Your task to perform on an android device: Search for razer huntsman on target.com, select the first entry, and add it to the cart. Image 0: 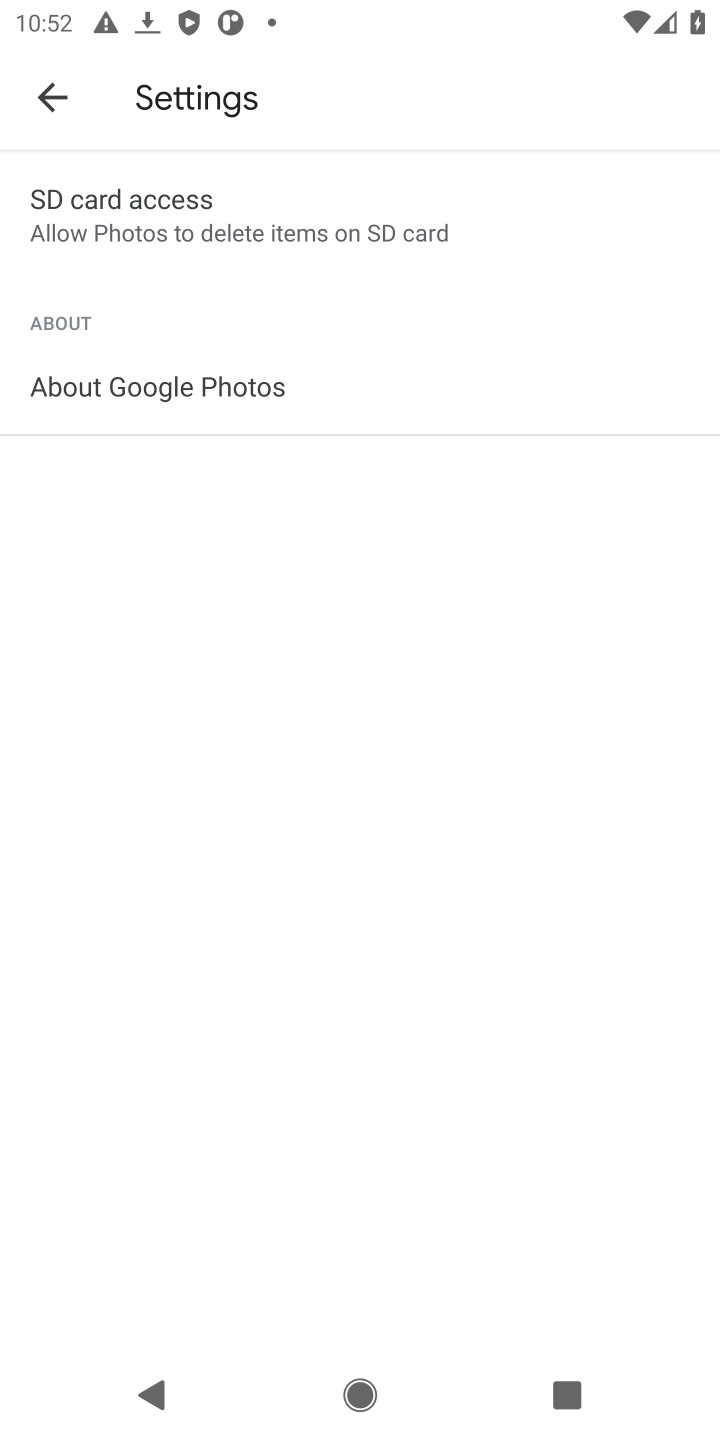
Step 0: press home button
Your task to perform on an android device: Search for razer huntsman on target.com, select the first entry, and add it to the cart. Image 1: 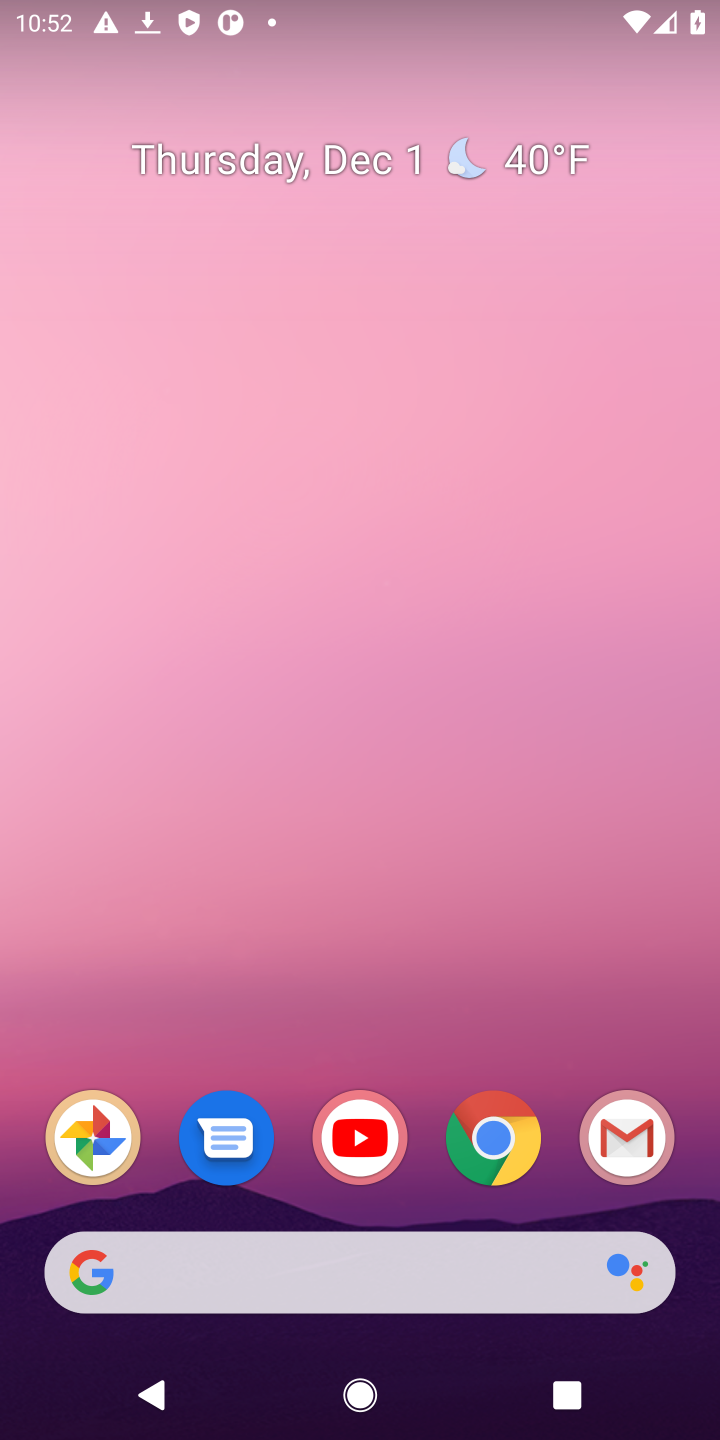
Step 1: drag from (356, 1208) to (358, 740)
Your task to perform on an android device: Search for razer huntsman on target.com, select the first entry, and add it to the cart. Image 2: 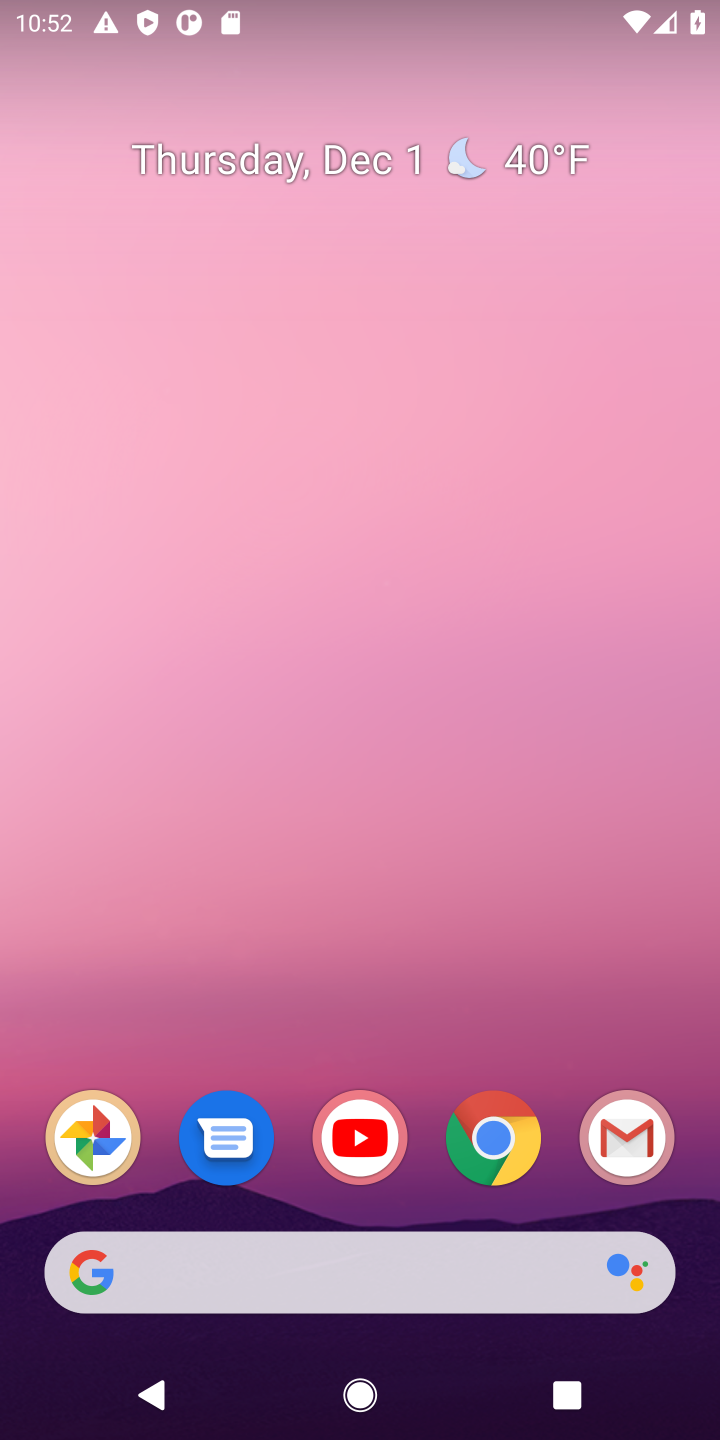
Step 2: drag from (300, 1217) to (388, 365)
Your task to perform on an android device: Search for razer huntsman on target.com, select the first entry, and add it to the cart. Image 3: 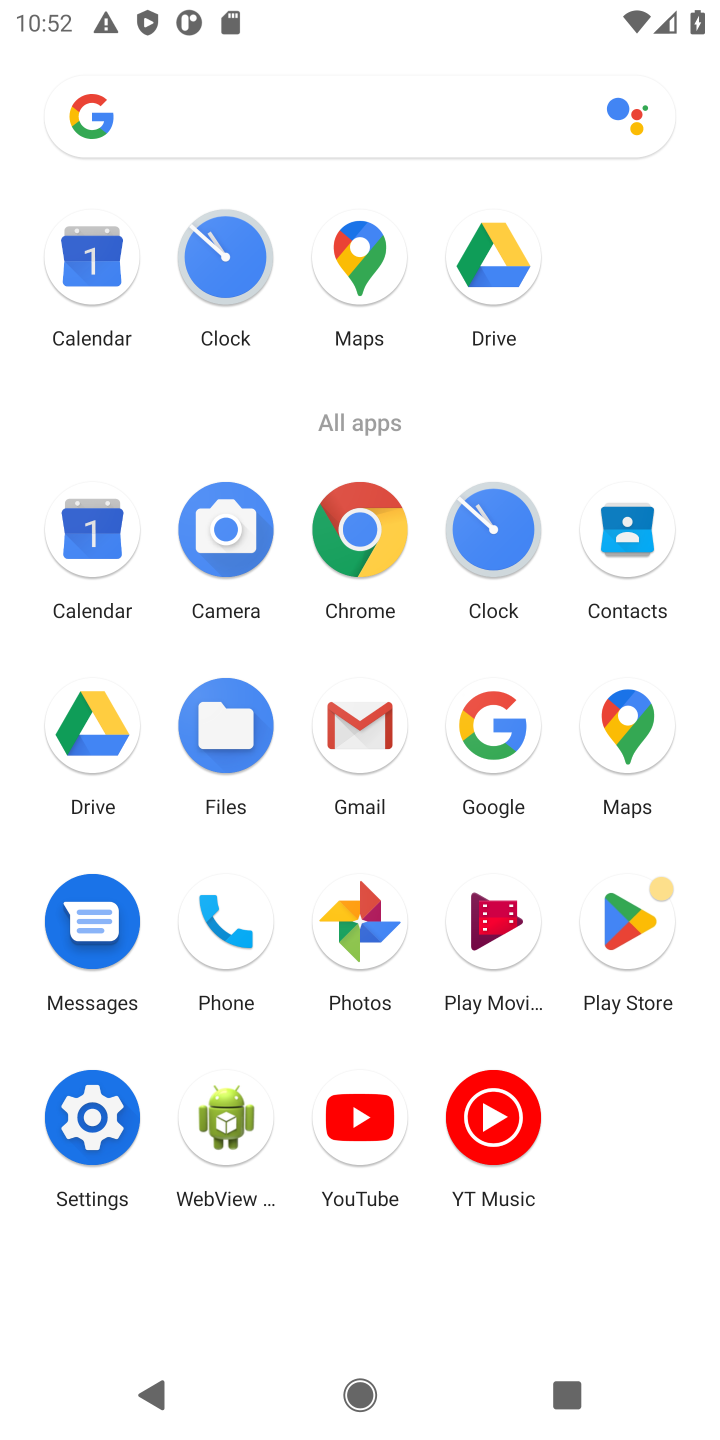
Step 3: click (504, 794)
Your task to perform on an android device: Search for razer huntsman on target.com, select the first entry, and add it to the cart. Image 4: 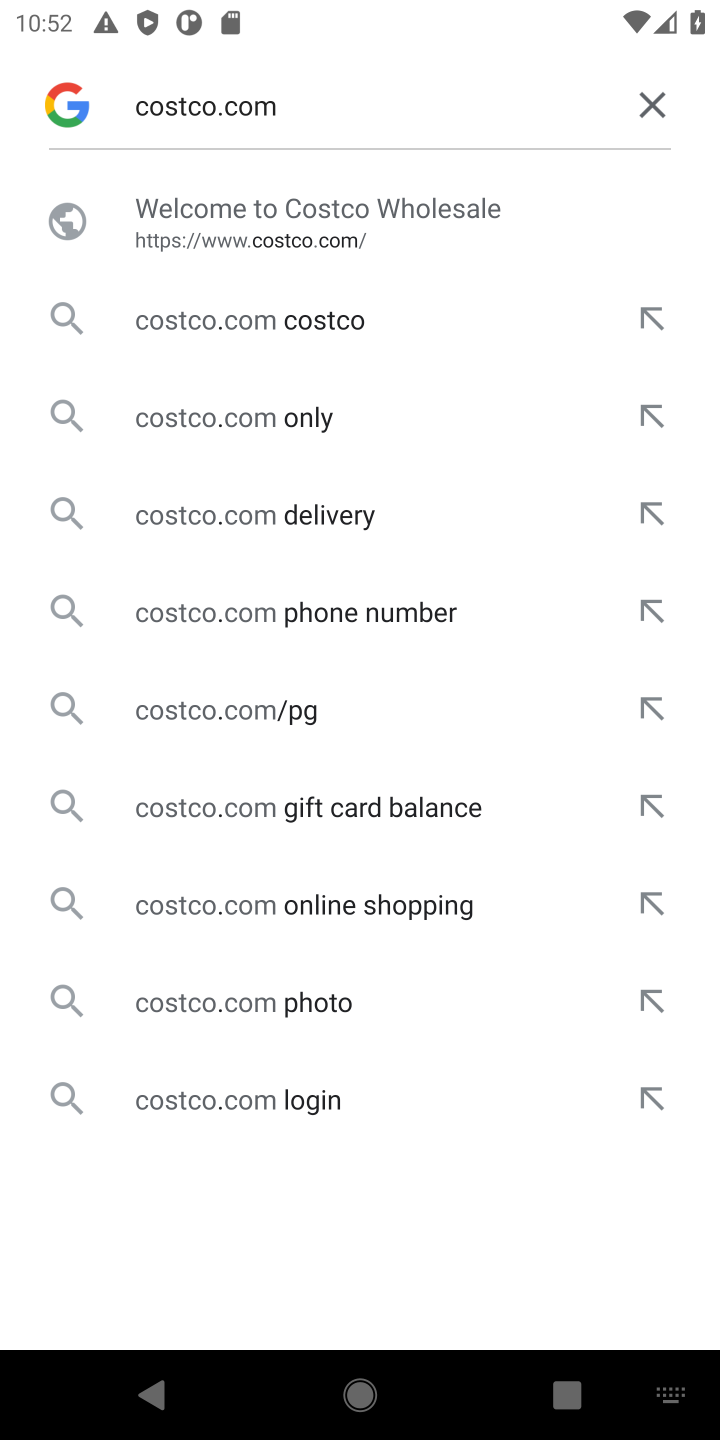
Step 4: click (652, 105)
Your task to perform on an android device: Search for razer huntsman on target.com, select the first entry, and add it to the cart. Image 5: 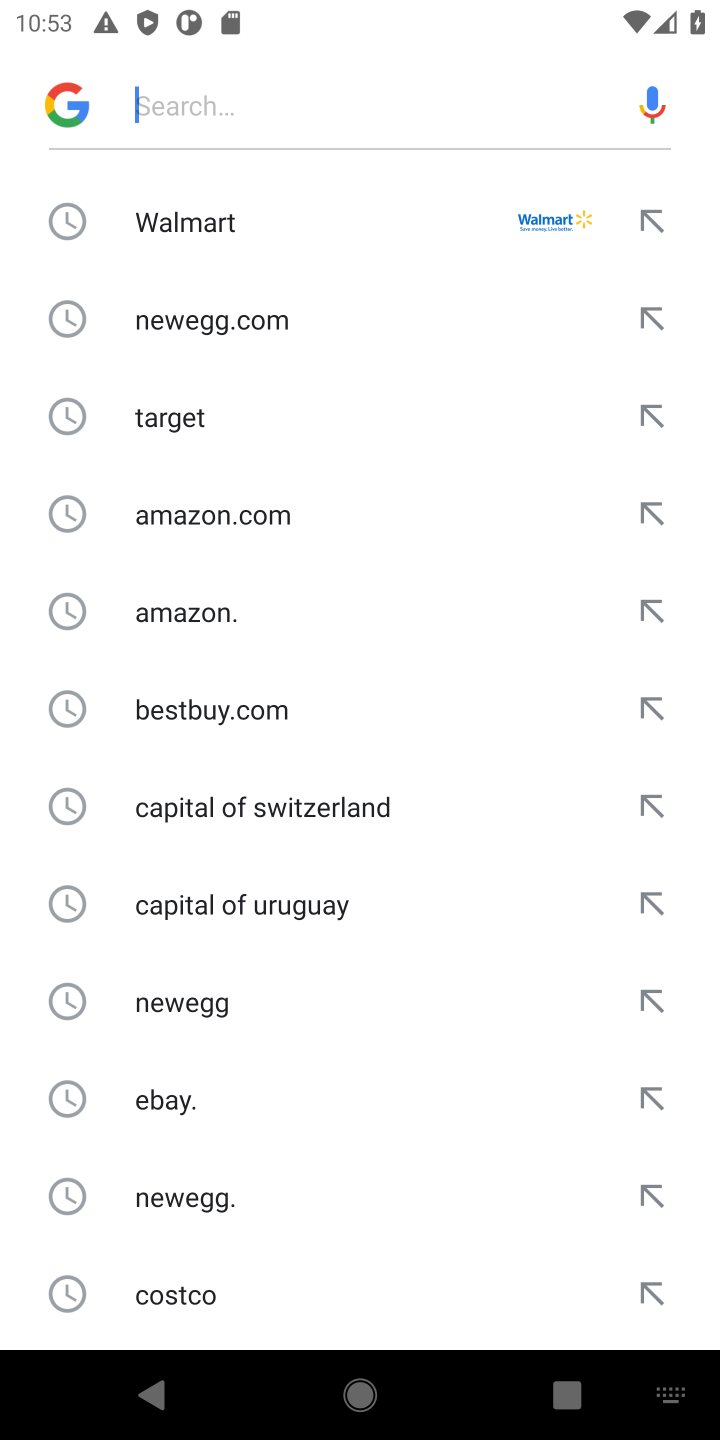
Step 5: type "target.com"
Your task to perform on an android device: Search for razer huntsman on target.com, select the first entry, and add it to the cart. Image 6: 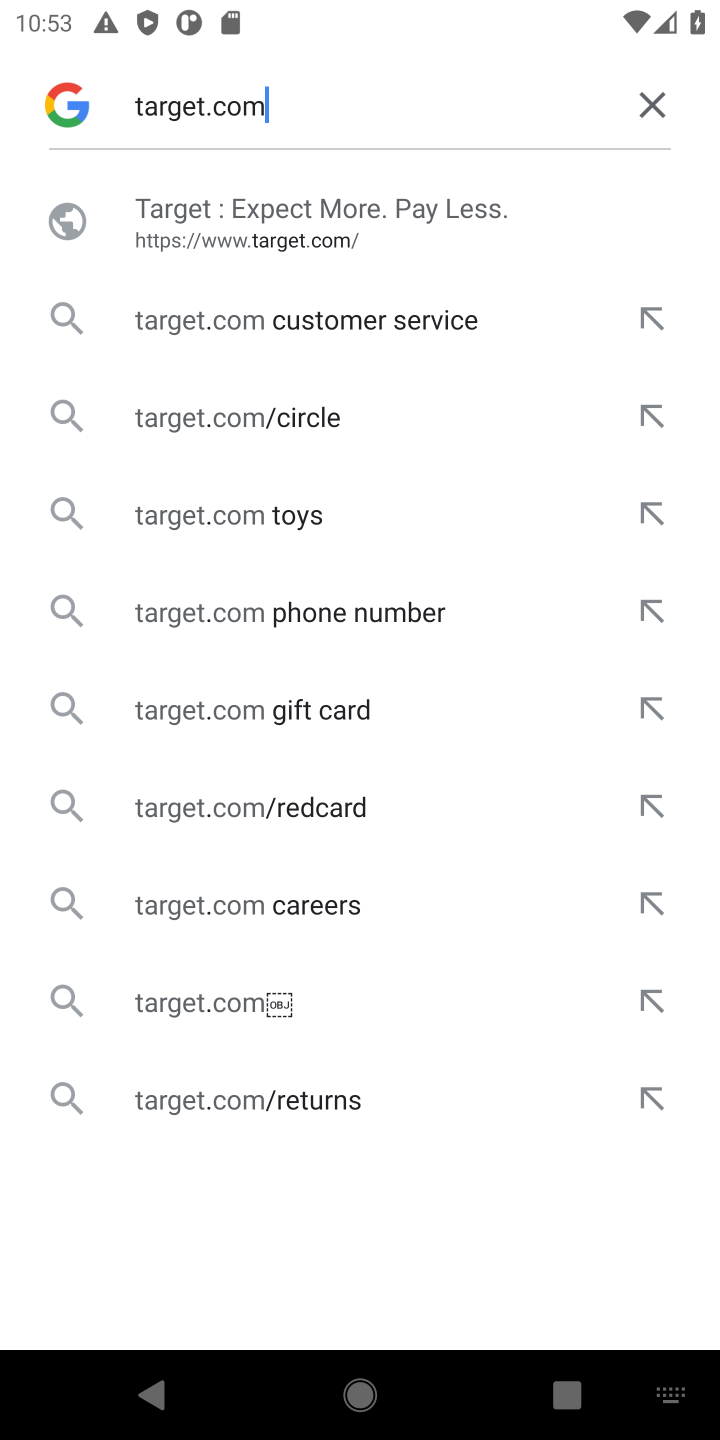
Step 6: click (323, 231)
Your task to perform on an android device: Search for razer huntsman on target.com, select the first entry, and add it to the cart. Image 7: 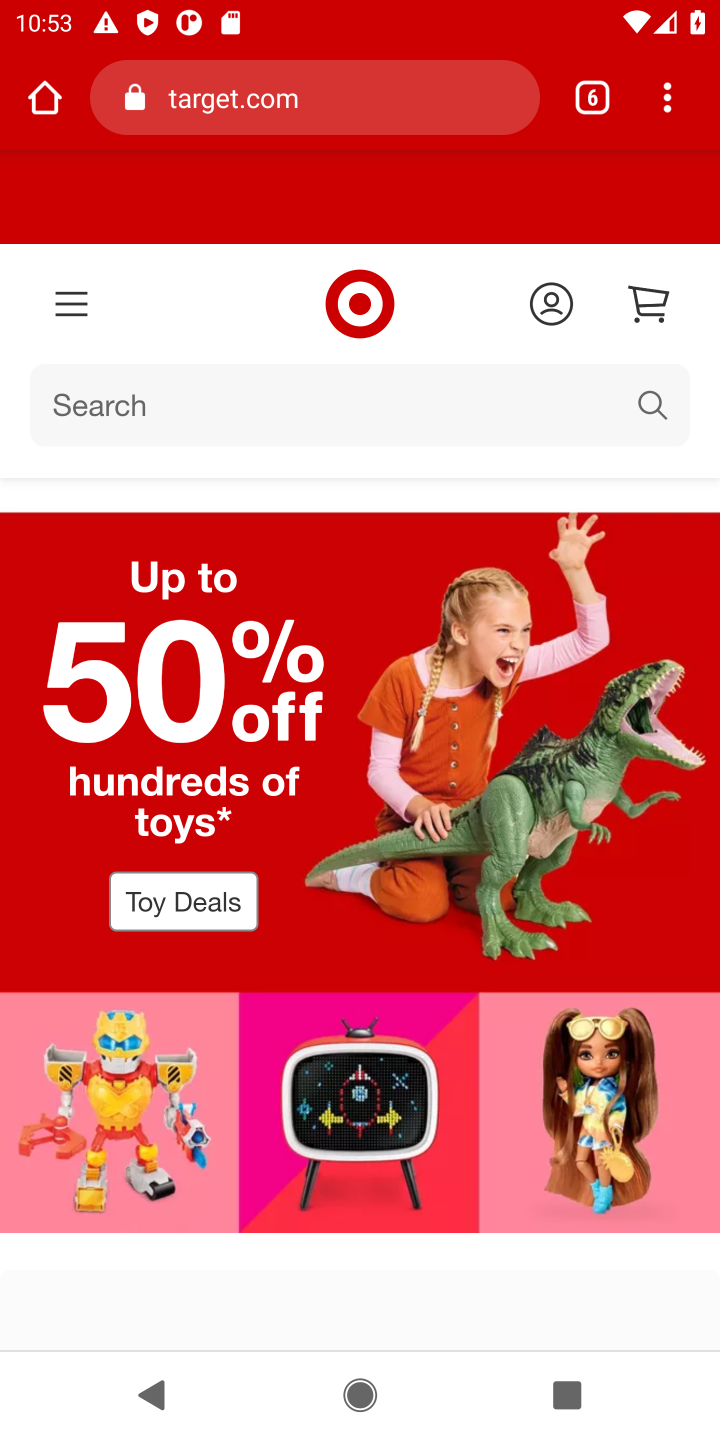
Step 7: click (465, 405)
Your task to perform on an android device: Search for razer huntsman on target.com, select the first entry, and add it to the cart. Image 8: 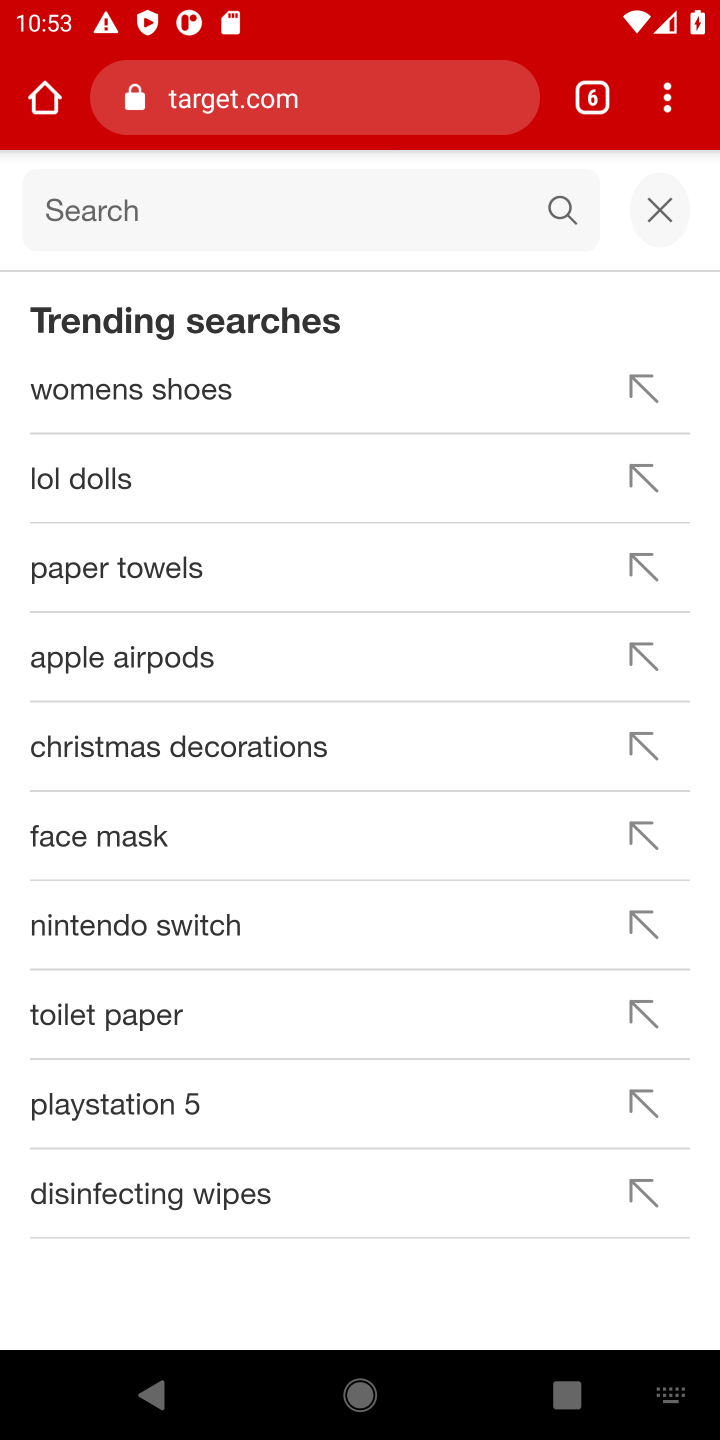
Step 8: type "huntsman"
Your task to perform on an android device: Search for razer huntsman on target.com, select the first entry, and add it to the cart. Image 9: 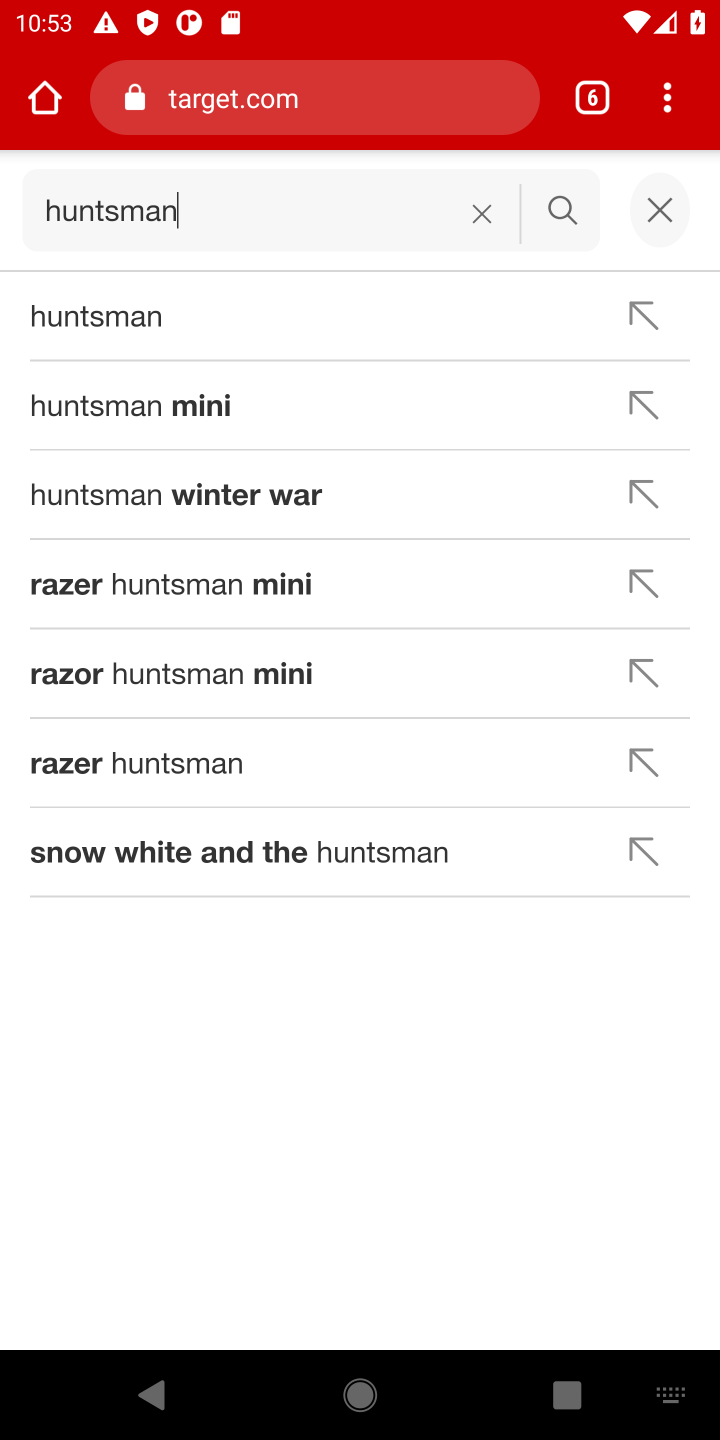
Step 9: click (150, 315)
Your task to perform on an android device: Search for razer huntsman on target.com, select the first entry, and add it to the cart. Image 10: 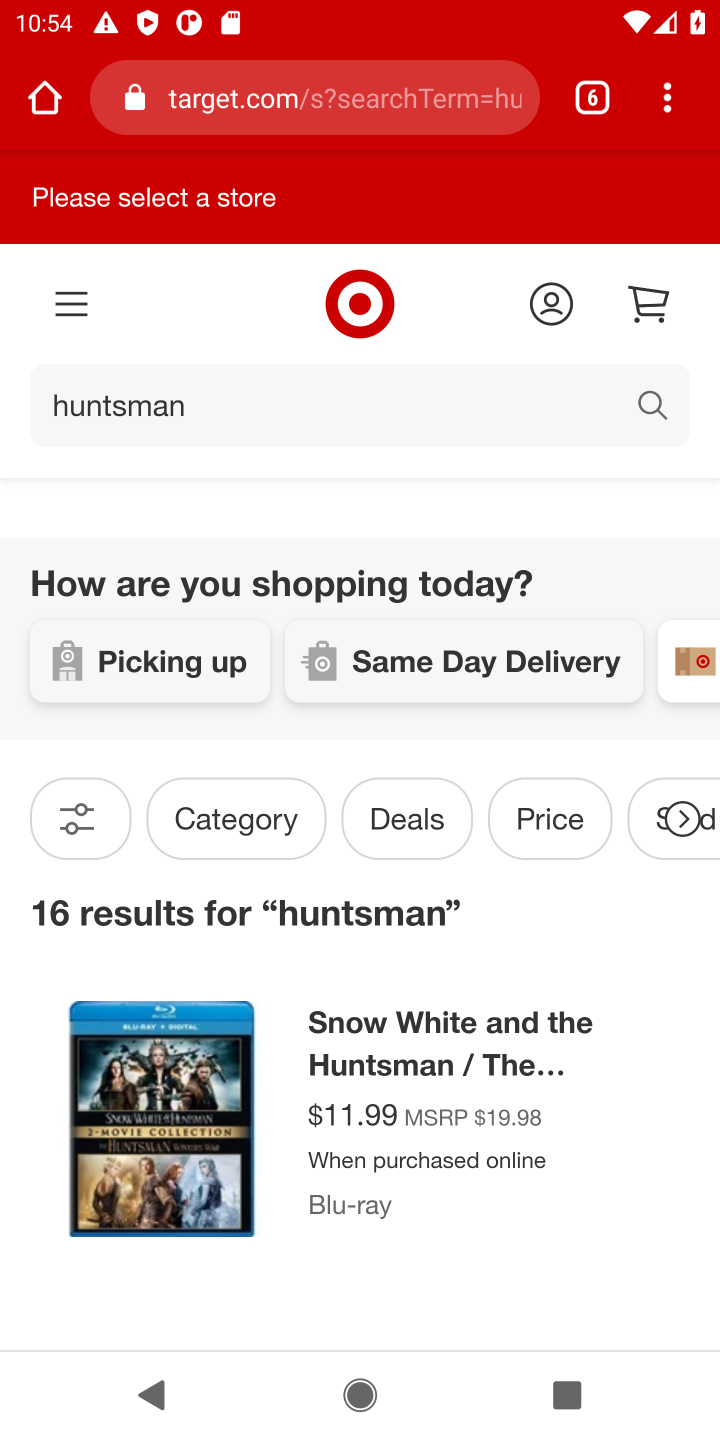
Step 10: click (452, 1111)
Your task to perform on an android device: Search for razer huntsman on target.com, select the first entry, and add it to the cart. Image 11: 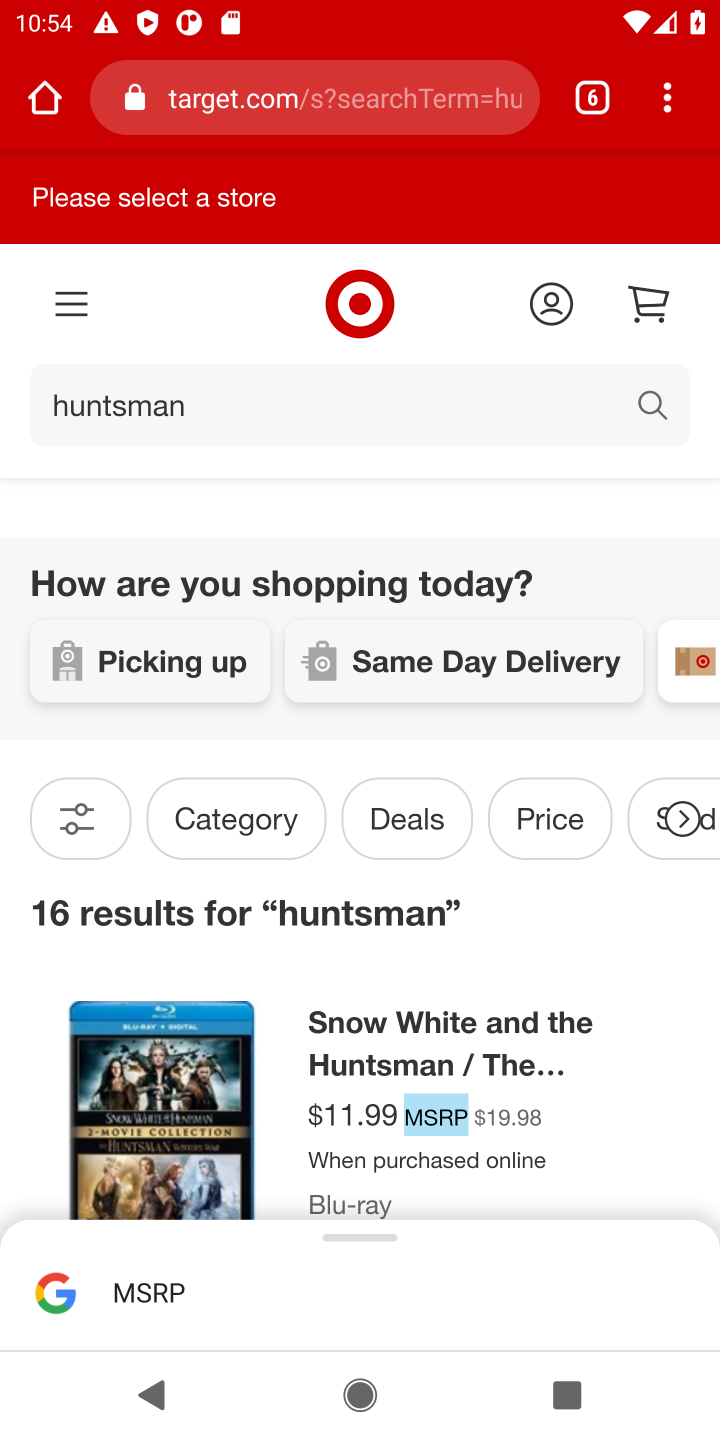
Step 11: click (218, 1046)
Your task to perform on an android device: Search for razer huntsman on target.com, select the first entry, and add it to the cart. Image 12: 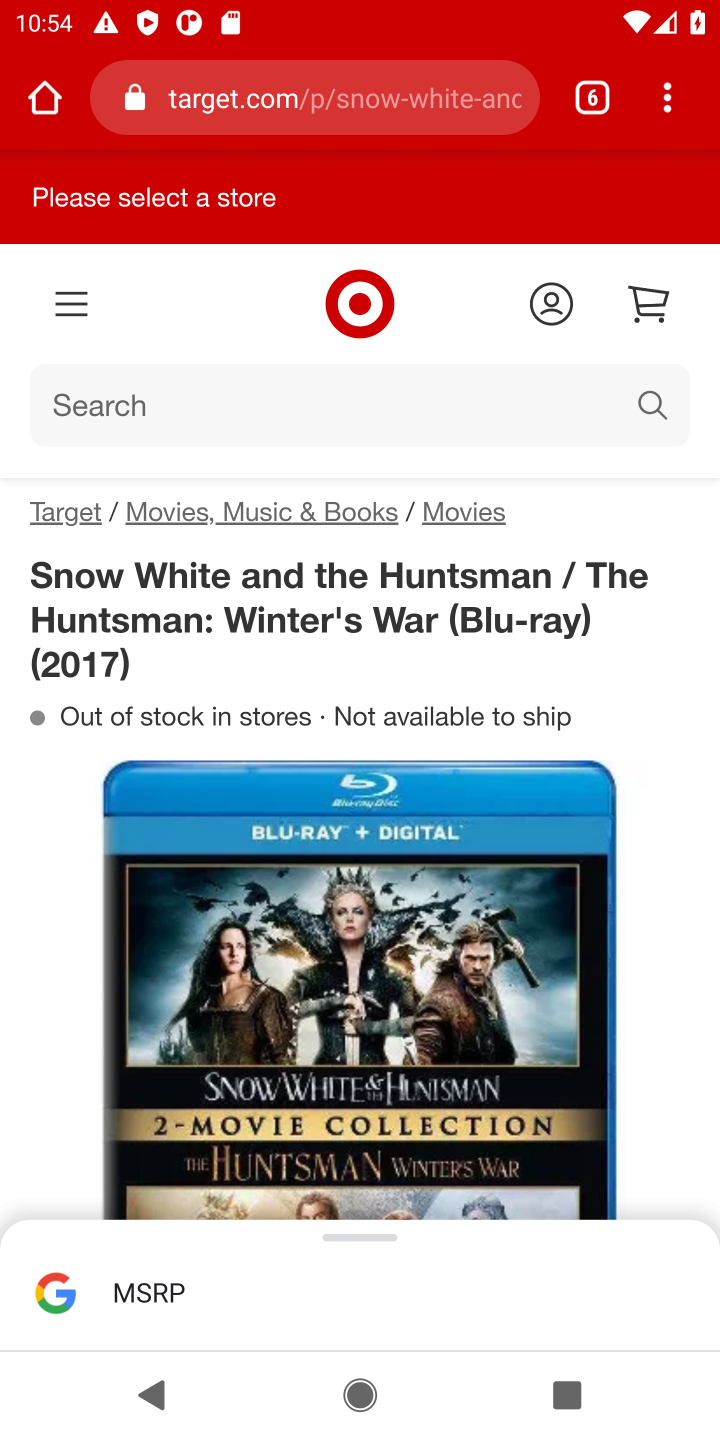
Step 12: drag from (436, 875) to (436, 543)
Your task to perform on an android device: Search for razer huntsman on target.com, select the first entry, and add it to the cart. Image 13: 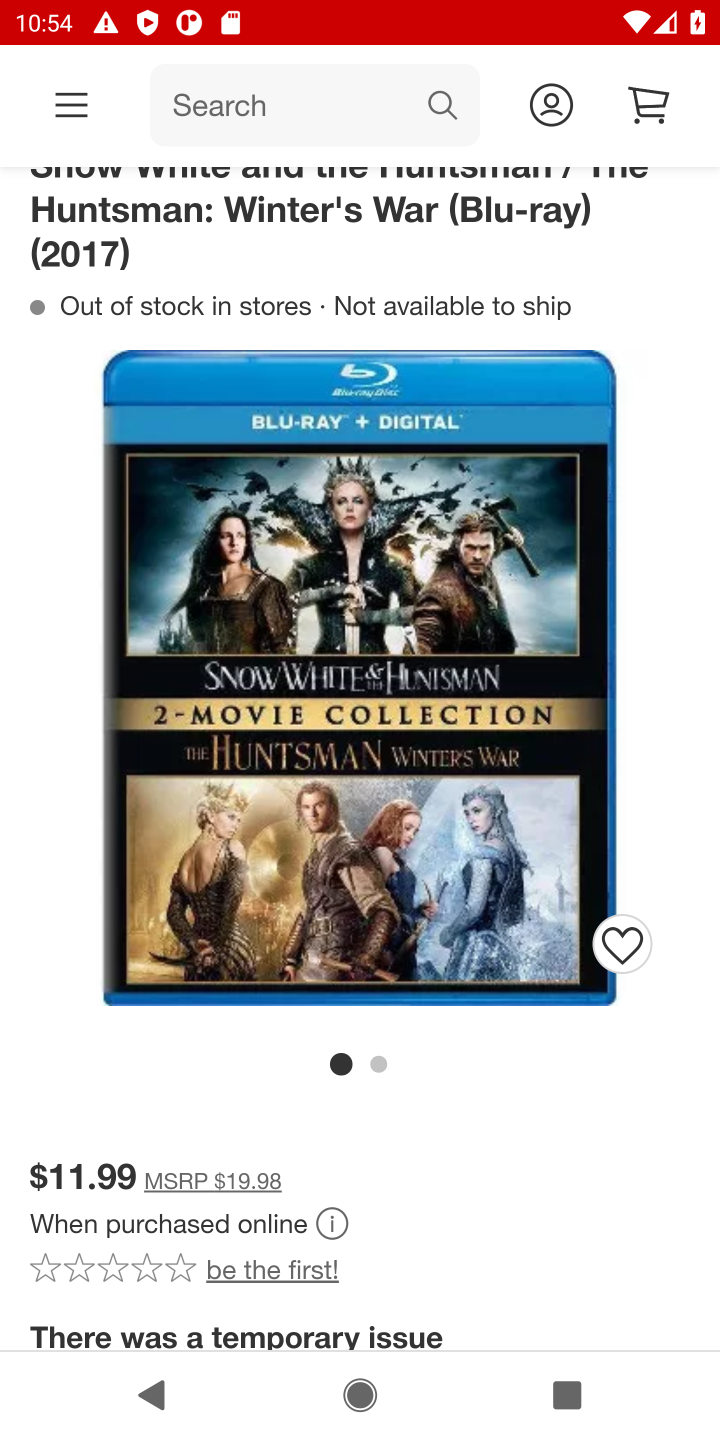
Step 13: drag from (430, 1170) to (522, 310)
Your task to perform on an android device: Search for razer huntsman on target.com, select the first entry, and add it to the cart. Image 14: 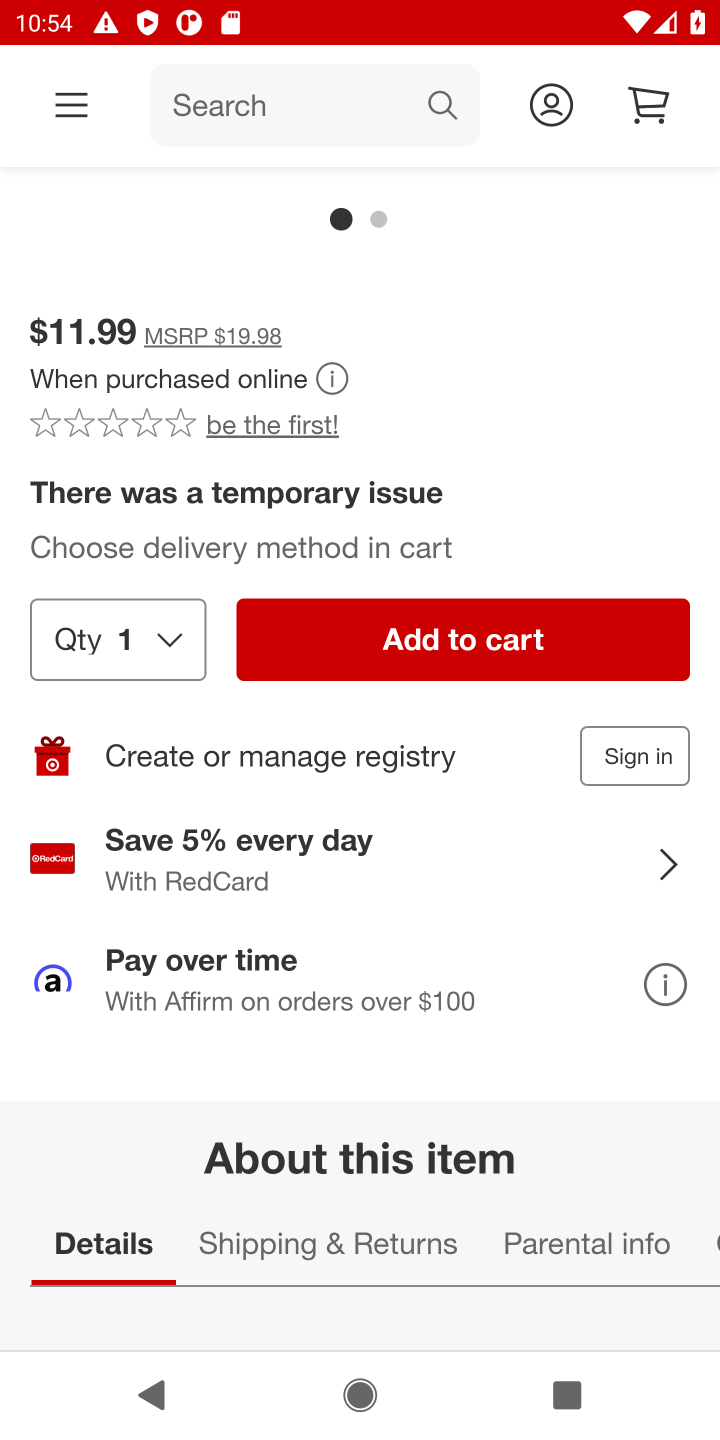
Step 14: click (452, 655)
Your task to perform on an android device: Search for razer huntsman on target.com, select the first entry, and add it to the cart. Image 15: 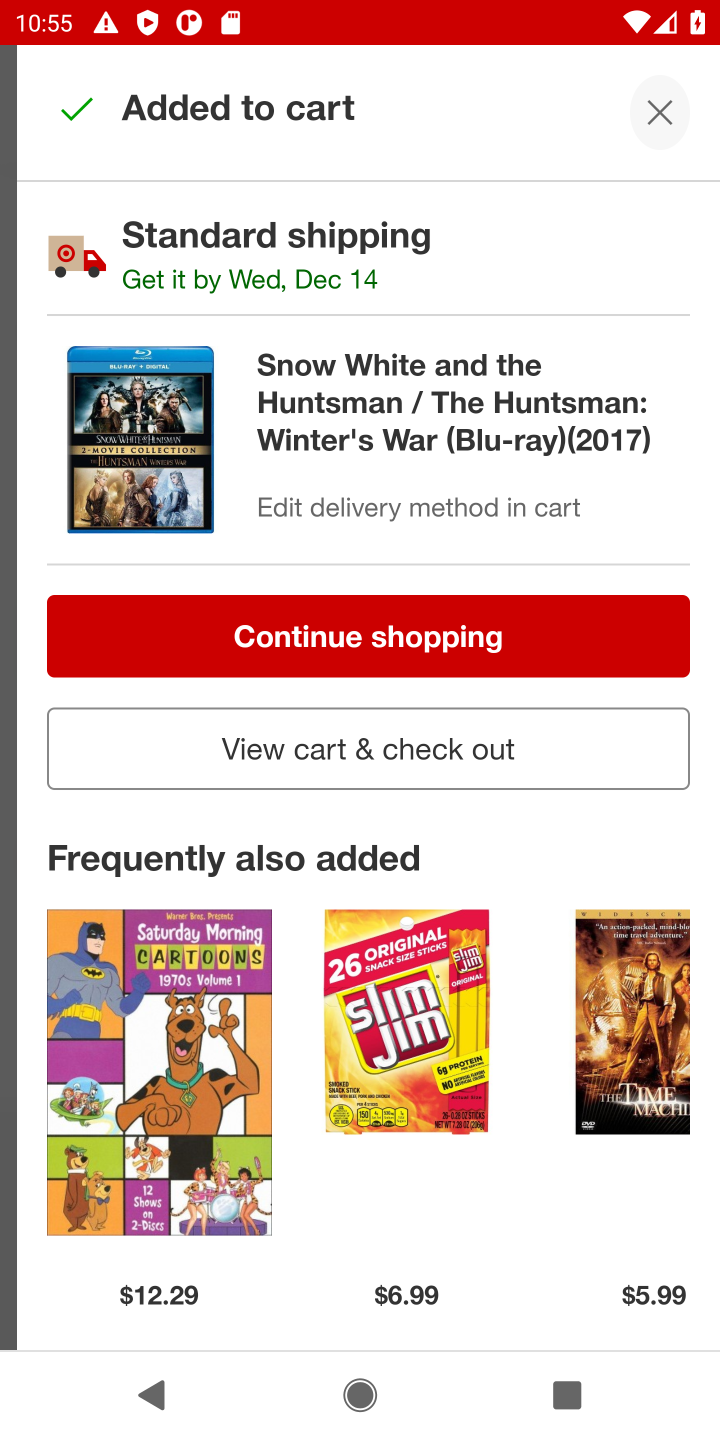
Step 15: task complete